Your task to perform on an android device: Open Reddit.com Image 0: 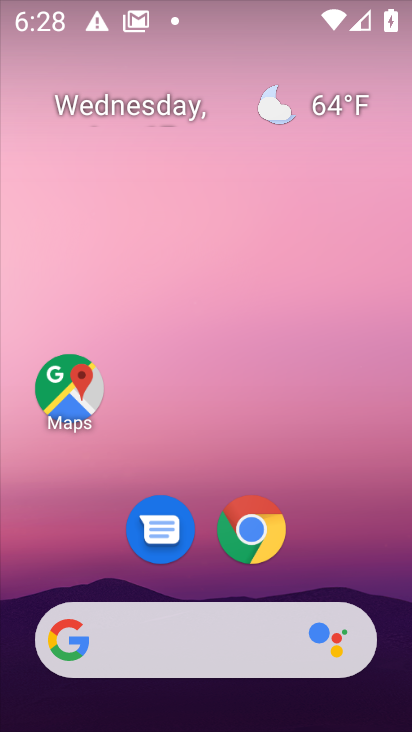
Step 0: press home button
Your task to perform on an android device: Open Reddit.com Image 1: 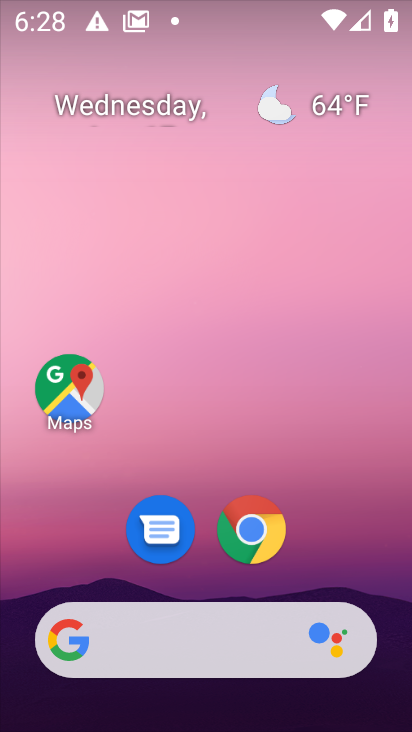
Step 1: click (245, 539)
Your task to perform on an android device: Open Reddit.com Image 2: 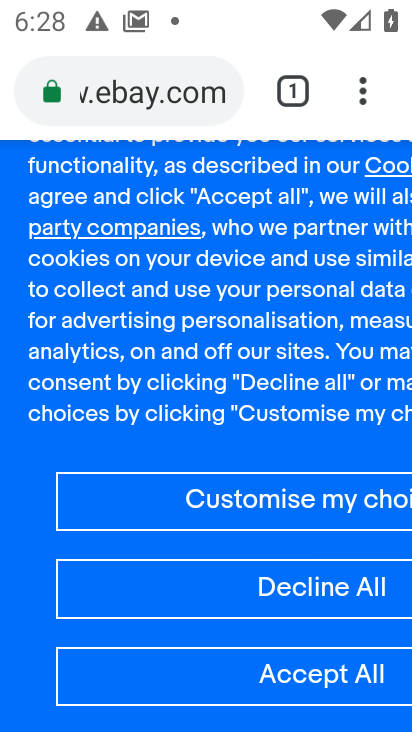
Step 2: click (134, 80)
Your task to perform on an android device: Open Reddit.com Image 3: 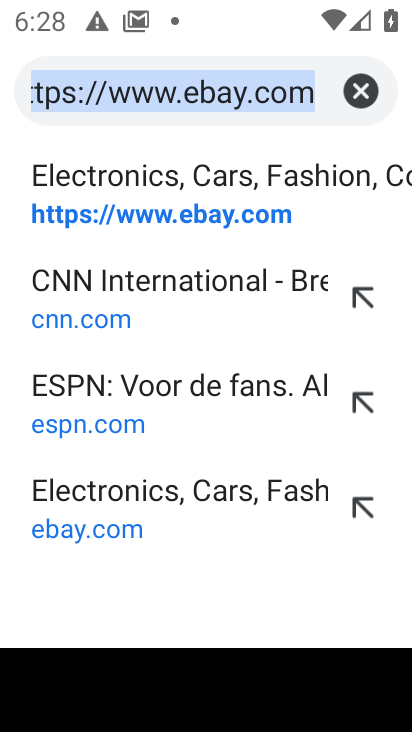
Step 3: type "www.reddit.com"
Your task to perform on an android device: Open Reddit.com Image 4: 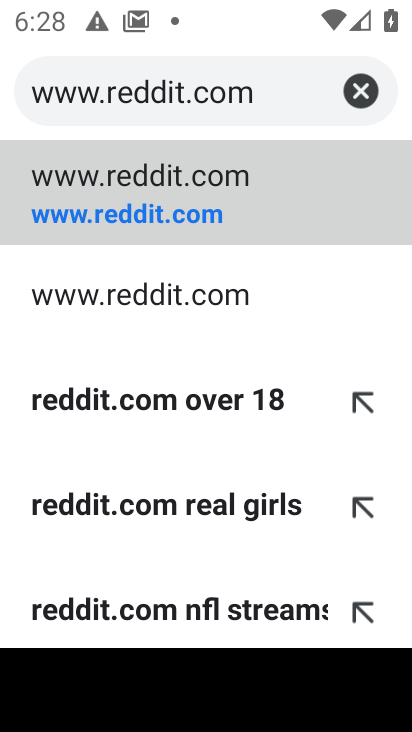
Step 4: click (148, 214)
Your task to perform on an android device: Open Reddit.com Image 5: 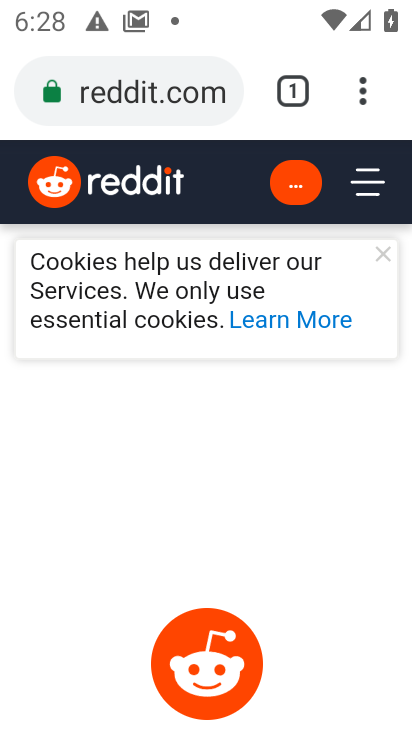
Step 5: task complete